Your task to perform on an android device: Open privacy settings Image 0: 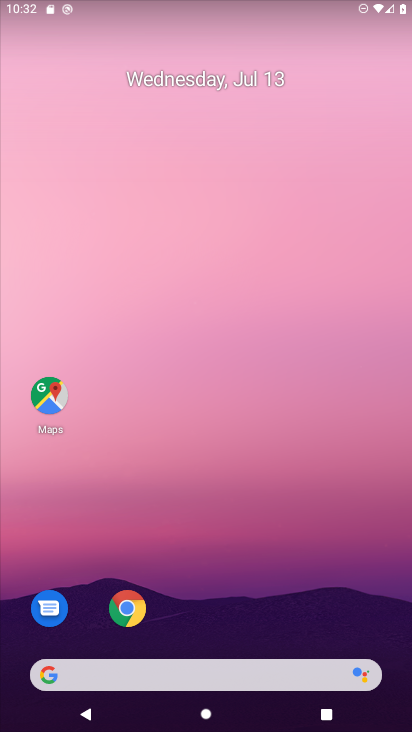
Step 0: drag from (160, 672) to (204, 305)
Your task to perform on an android device: Open privacy settings Image 1: 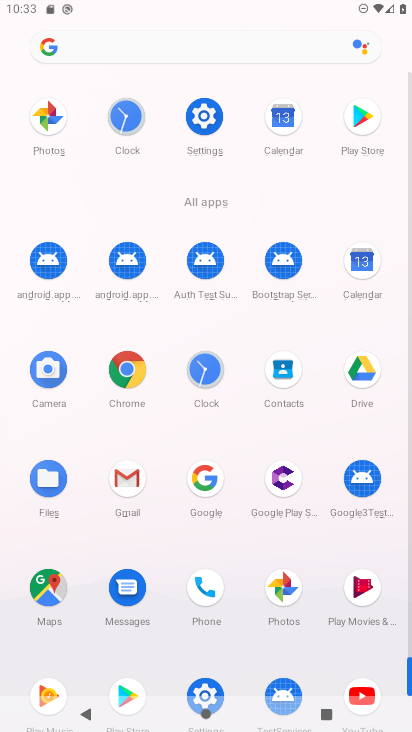
Step 1: click (205, 113)
Your task to perform on an android device: Open privacy settings Image 2: 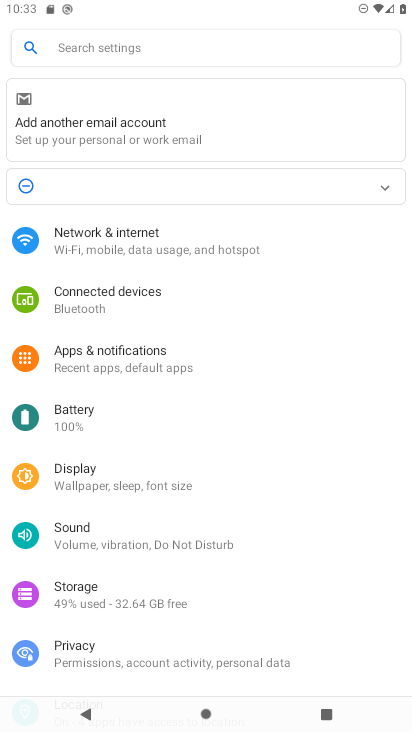
Step 2: drag from (116, 499) to (129, 407)
Your task to perform on an android device: Open privacy settings Image 3: 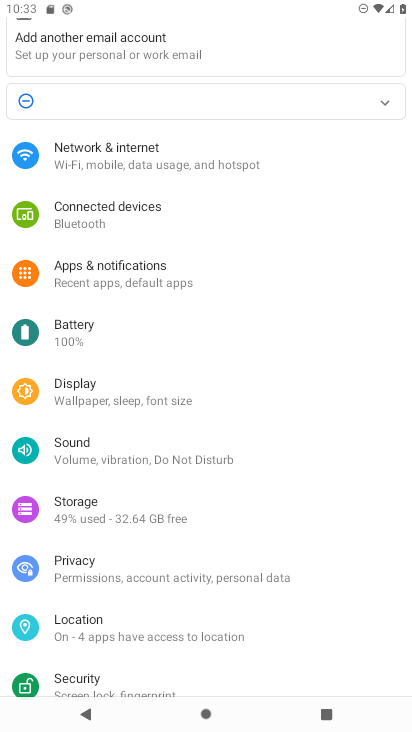
Step 3: drag from (114, 597) to (114, 459)
Your task to perform on an android device: Open privacy settings Image 4: 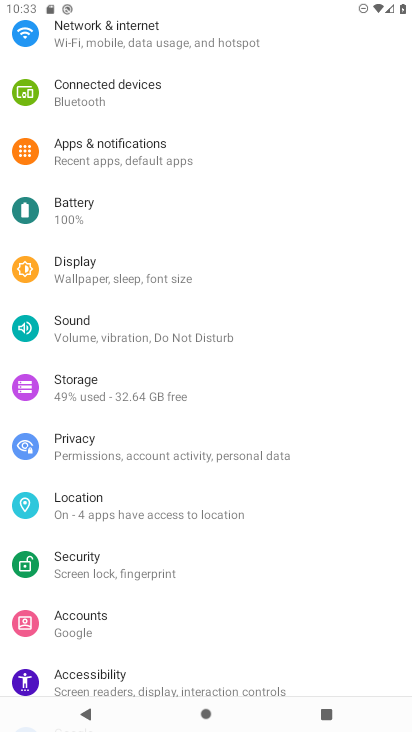
Step 4: drag from (90, 635) to (98, 493)
Your task to perform on an android device: Open privacy settings Image 5: 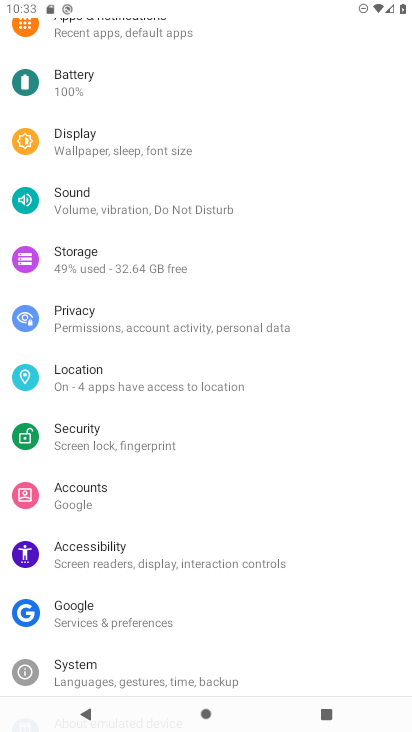
Step 5: click (90, 327)
Your task to perform on an android device: Open privacy settings Image 6: 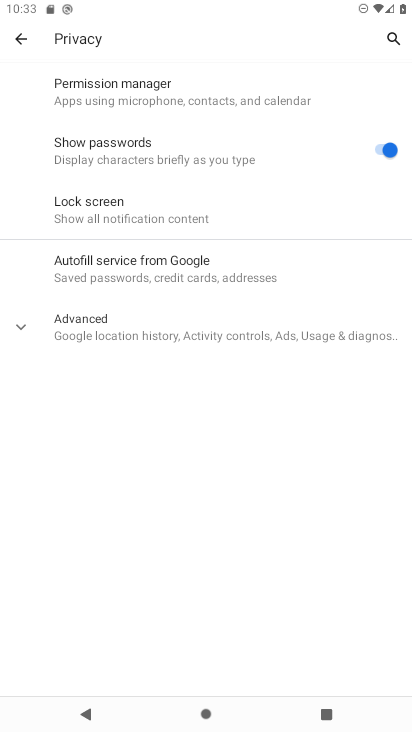
Step 6: task complete